Your task to perform on an android device: What's the weather like in Seoul? Image 0: 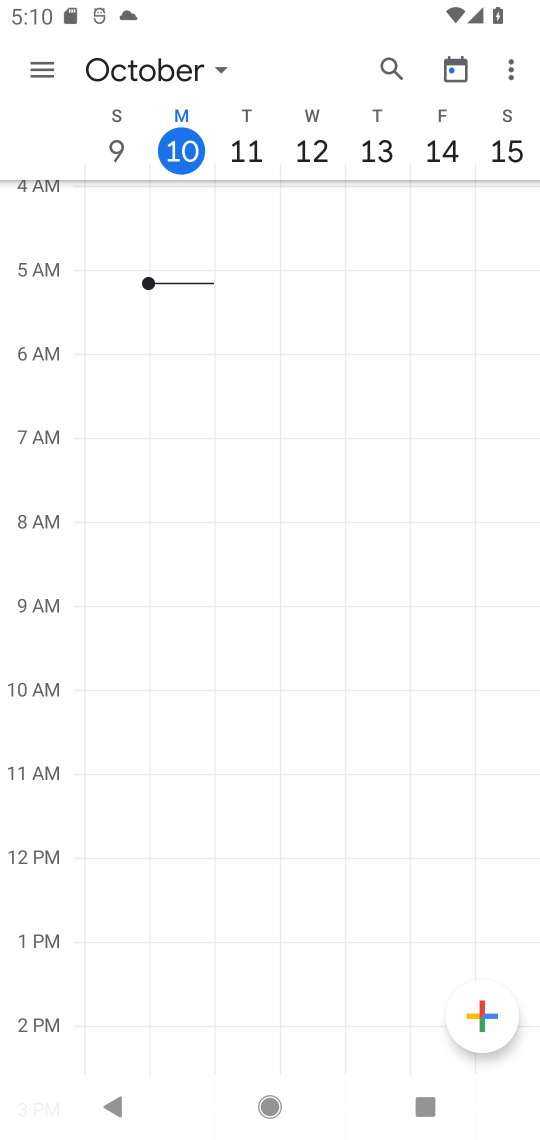
Step 0: press home button
Your task to perform on an android device: What's the weather like in Seoul? Image 1: 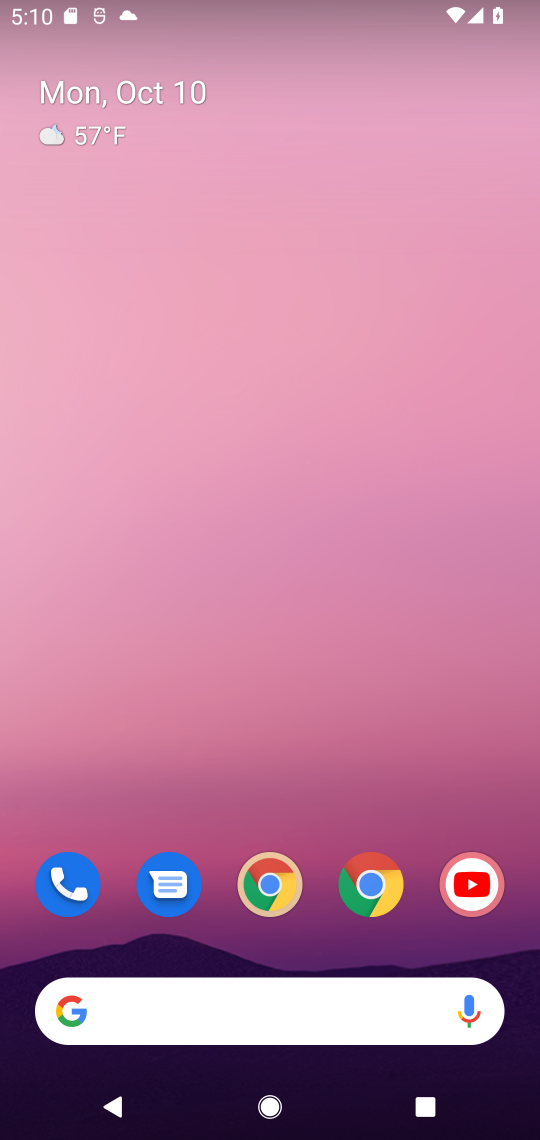
Step 1: click (179, 1018)
Your task to perform on an android device: What's the weather like in Seoul? Image 2: 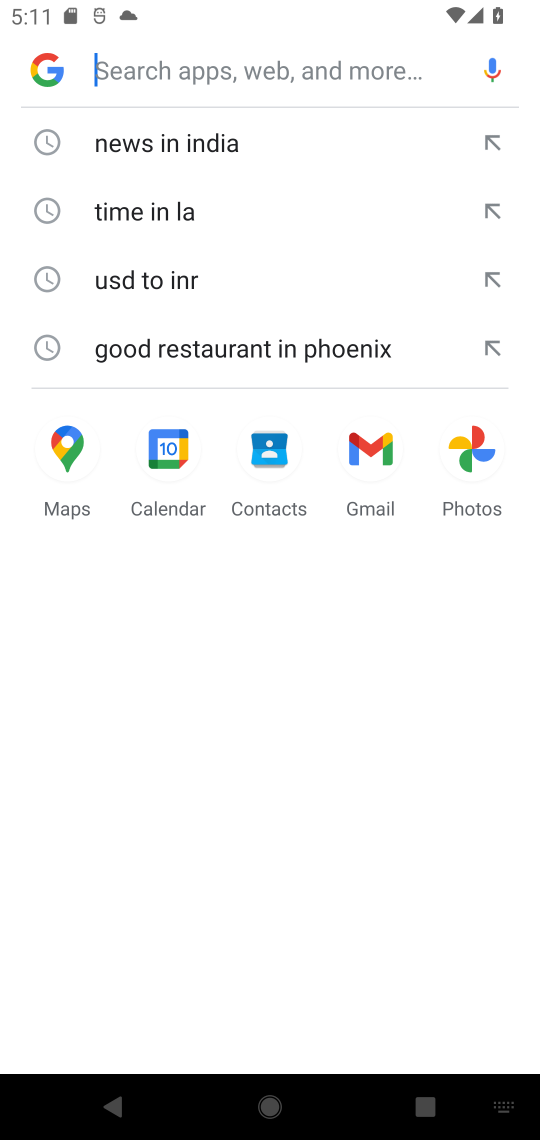
Step 2: type "weather in seoul"
Your task to perform on an android device: What's the weather like in Seoul? Image 3: 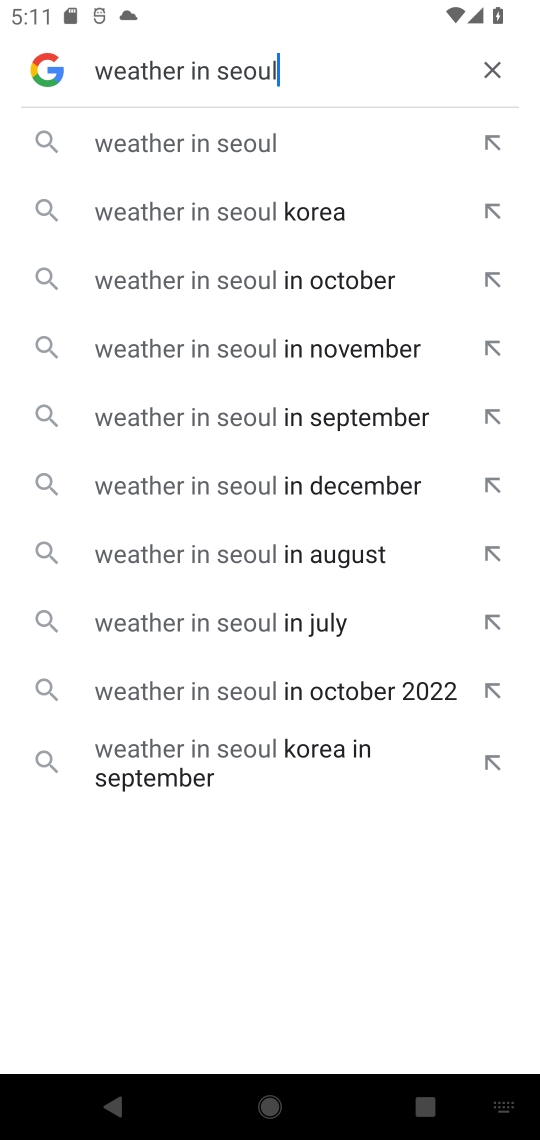
Step 3: click (229, 161)
Your task to perform on an android device: What's the weather like in Seoul? Image 4: 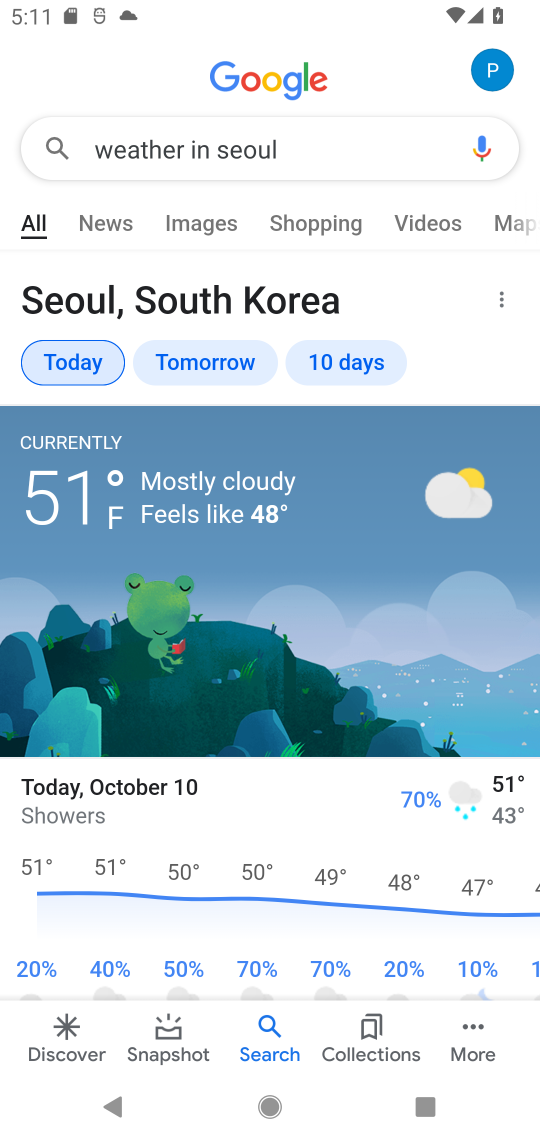
Step 4: task complete